Your task to perform on an android device: turn off javascript in the chrome app Image 0: 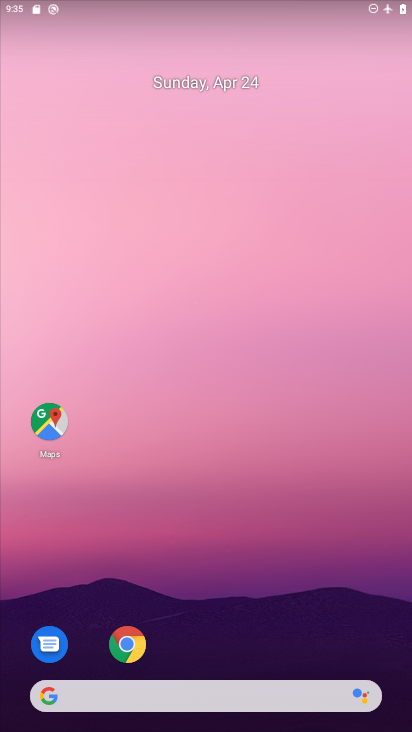
Step 0: drag from (185, 668) to (394, 181)
Your task to perform on an android device: turn off javascript in the chrome app Image 1: 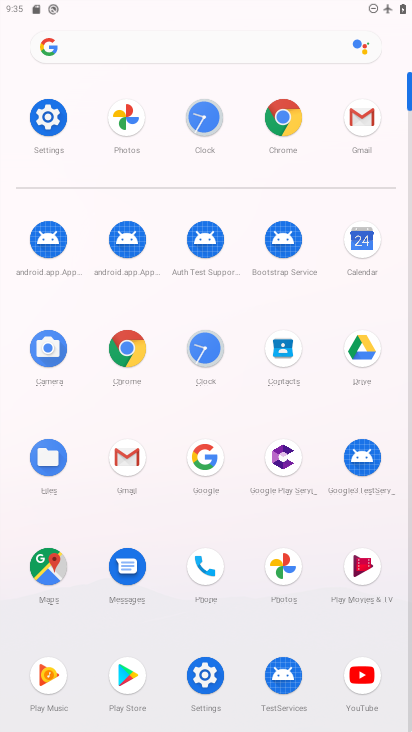
Step 1: click (278, 125)
Your task to perform on an android device: turn off javascript in the chrome app Image 2: 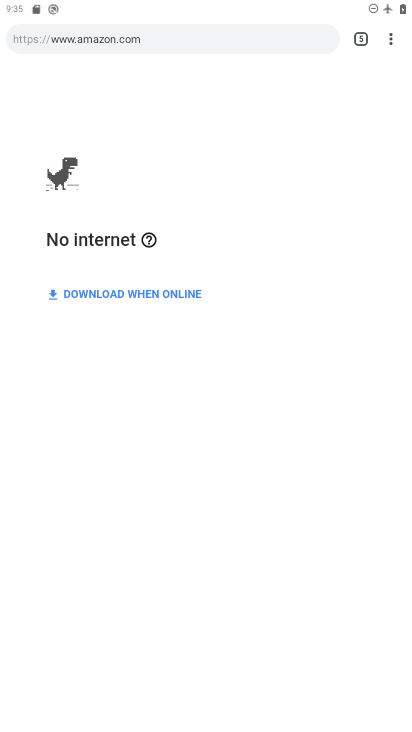
Step 2: drag from (389, 36) to (270, 478)
Your task to perform on an android device: turn off javascript in the chrome app Image 3: 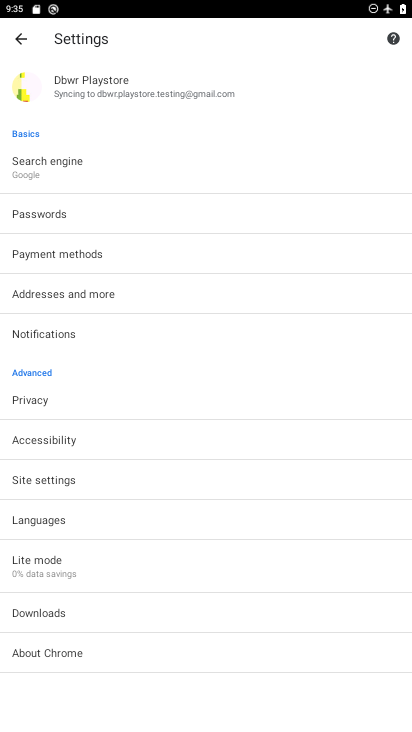
Step 3: click (57, 484)
Your task to perform on an android device: turn off javascript in the chrome app Image 4: 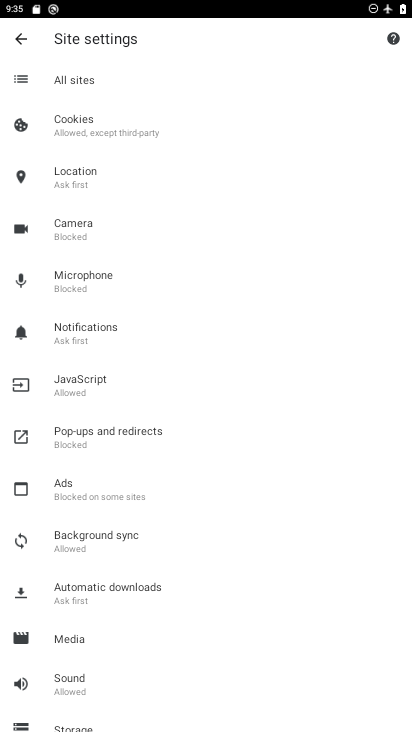
Step 4: click (91, 390)
Your task to perform on an android device: turn off javascript in the chrome app Image 5: 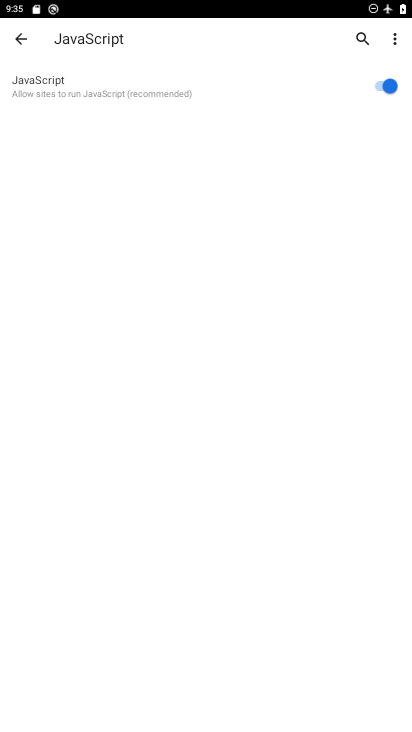
Step 5: click (386, 76)
Your task to perform on an android device: turn off javascript in the chrome app Image 6: 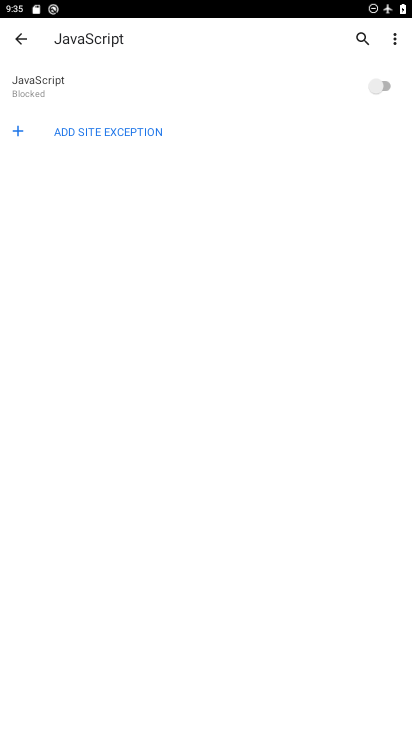
Step 6: task complete